Your task to perform on an android device: choose inbox layout in the gmail app Image 0: 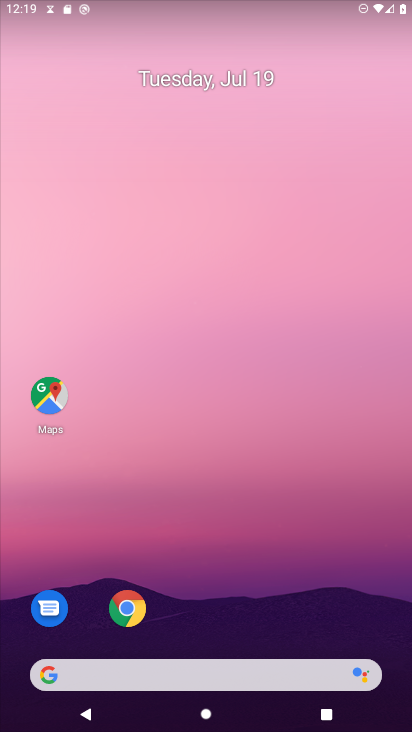
Step 0: drag from (334, 654) to (355, 100)
Your task to perform on an android device: choose inbox layout in the gmail app Image 1: 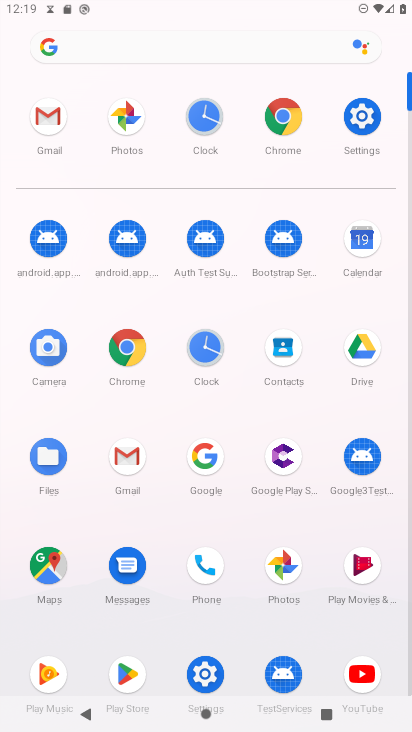
Step 1: click (122, 454)
Your task to perform on an android device: choose inbox layout in the gmail app Image 2: 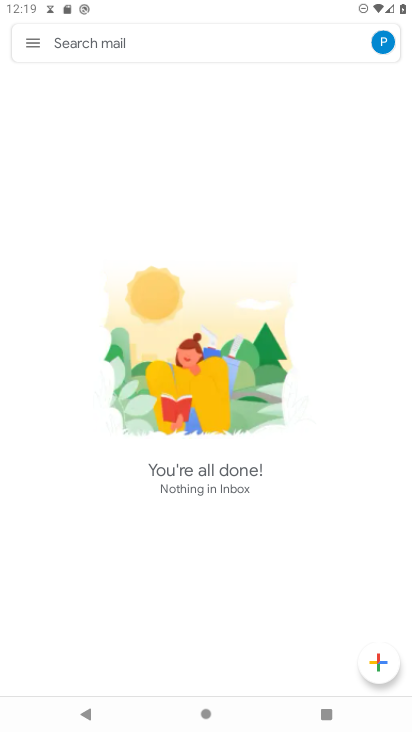
Step 2: click (26, 49)
Your task to perform on an android device: choose inbox layout in the gmail app Image 3: 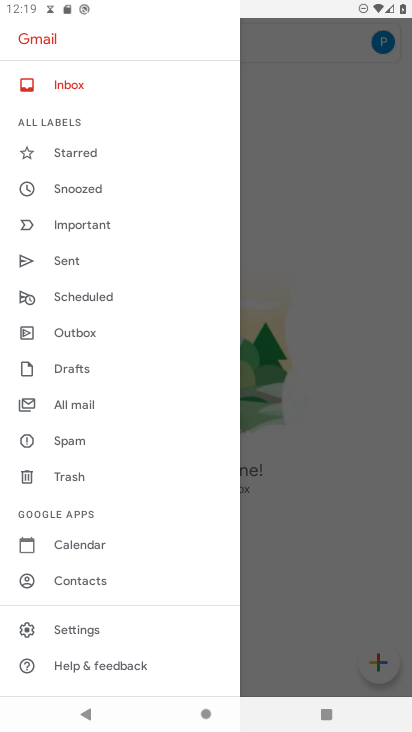
Step 3: click (77, 620)
Your task to perform on an android device: choose inbox layout in the gmail app Image 4: 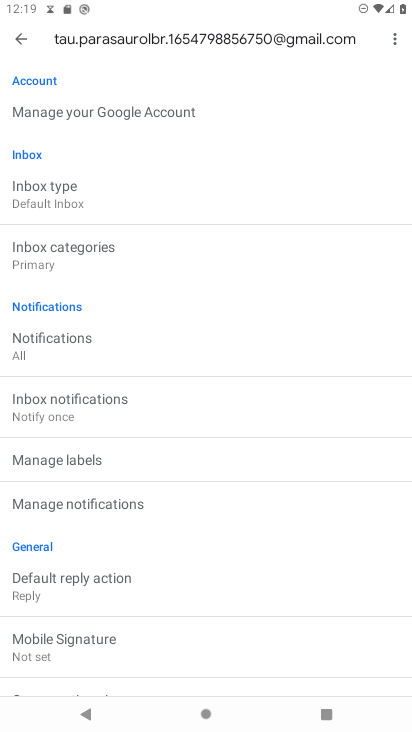
Step 4: click (116, 214)
Your task to perform on an android device: choose inbox layout in the gmail app Image 5: 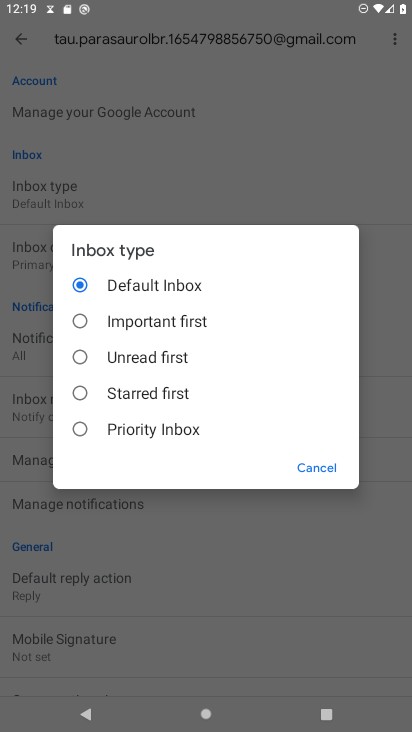
Step 5: click (82, 434)
Your task to perform on an android device: choose inbox layout in the gmail app Image 6: 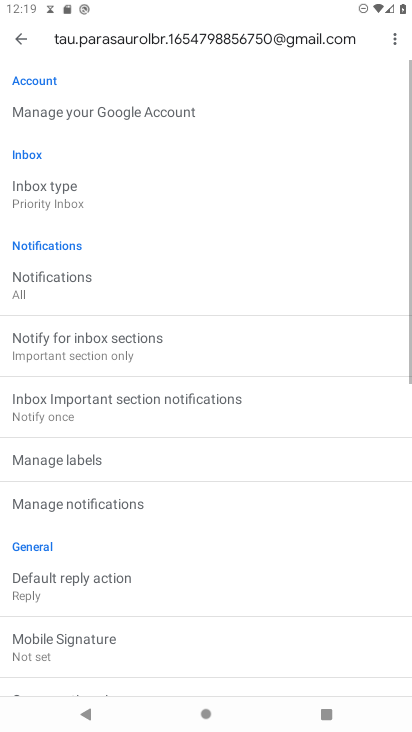
Step 6: task complete